Your task to perform on an android device: Show me popular games on the Play Store Image 0: 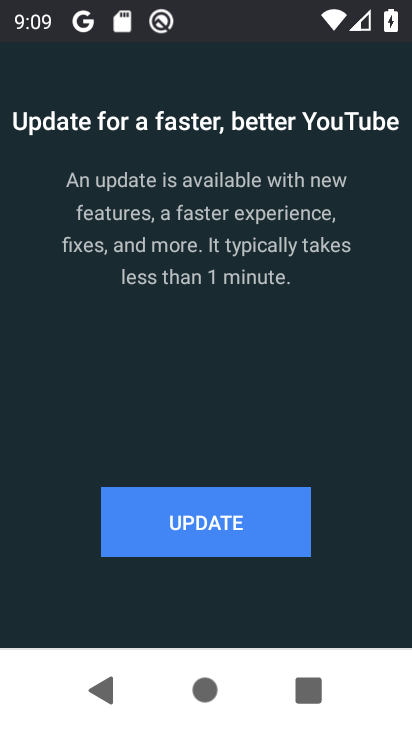
Step 0: press home button
Your task to perform on an android device: Show me popular games on the Play Store Image 1: 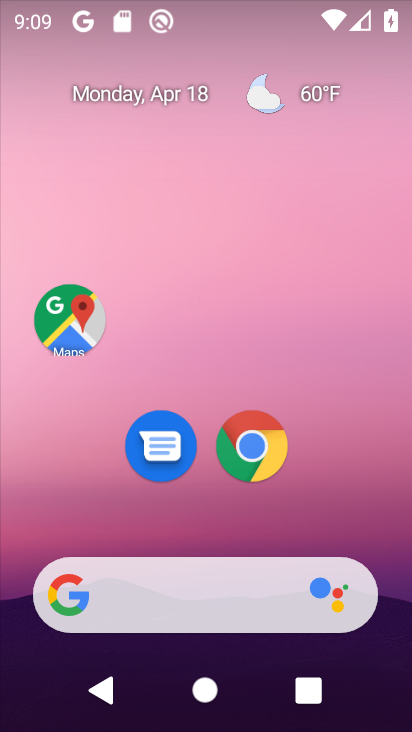
Step 1: drag from (380, 552) to (352, 110)
Your task to perform on an android device: Show me popular games on the Play Store Image 2: 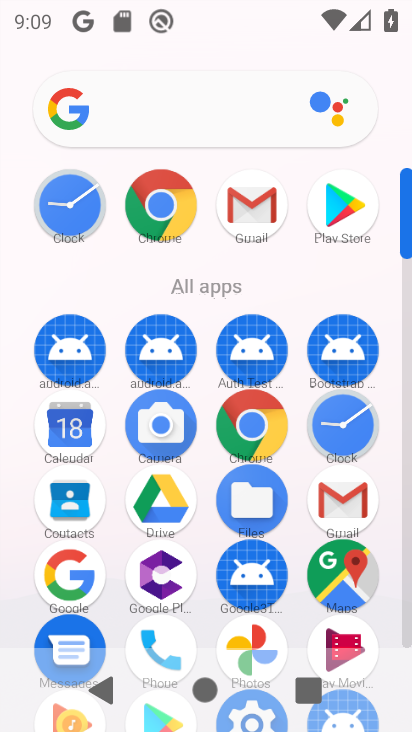
Step 2: drag from (397, 557) to (393, 292)
Your task to perform on an android device: Show me popular games on the Play Store Image 3: 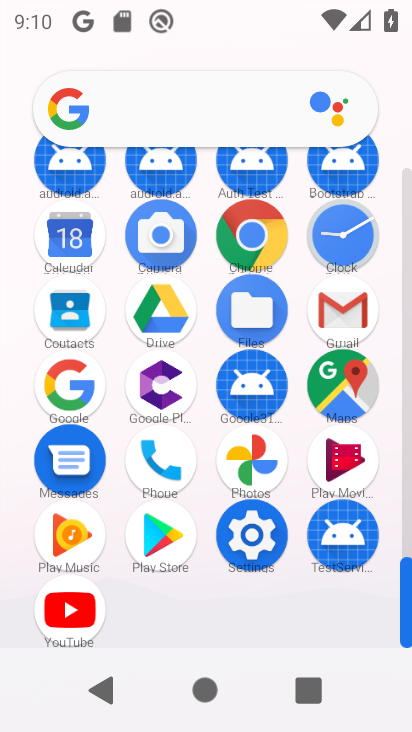
Step 3: click (151, 547)
Your task to perform on an android device: Show me popular games on the Play Store Image 4: 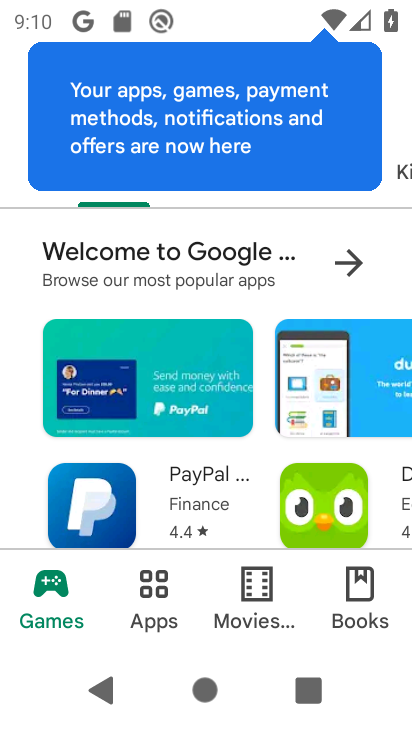
Step 4: task complete